Your task to perform on an android device: Open ESPN.com Image 0: 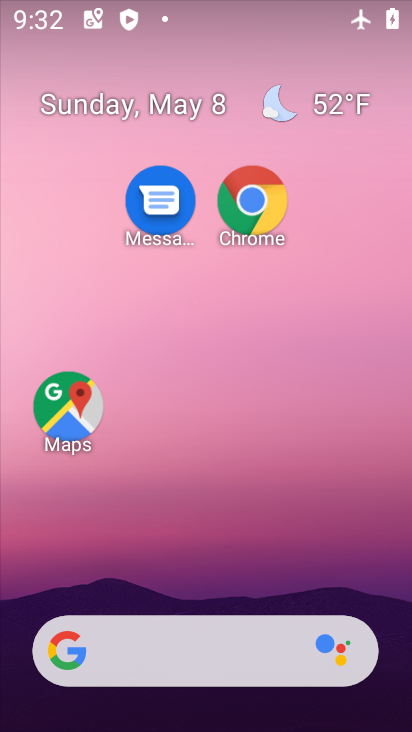
Step 0: click (255, 231)
Your task to perform on an android device: Open ESPN.com Image 1: 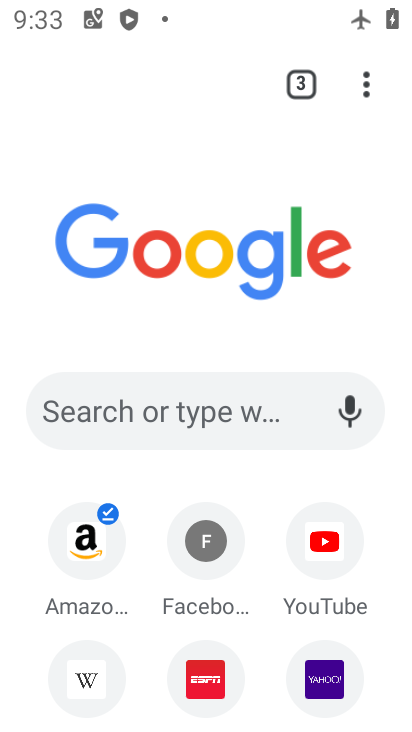
Step 1: click (215, 673)
Your task to perform on an android device: Open ESPN.com Image 2: 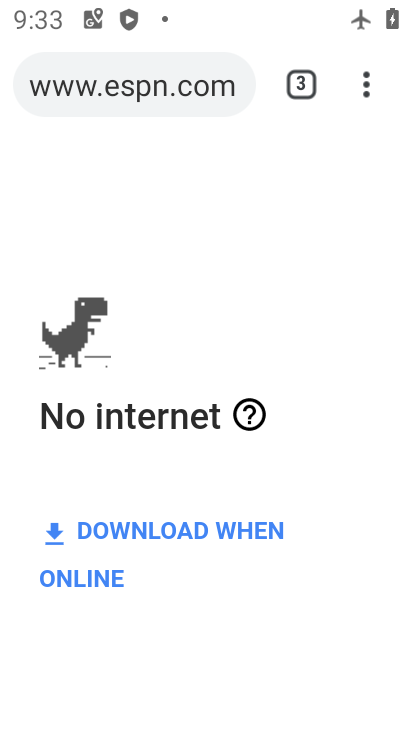
Step 2: task complete